Your task to perform on an android device: all mails in gmail Image 0: 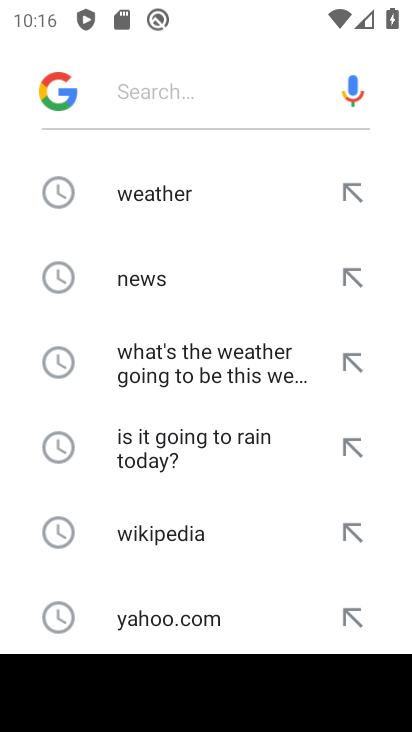
Step 0: press home button
Your task to perform on an android device: all mails in gmail Image 1: 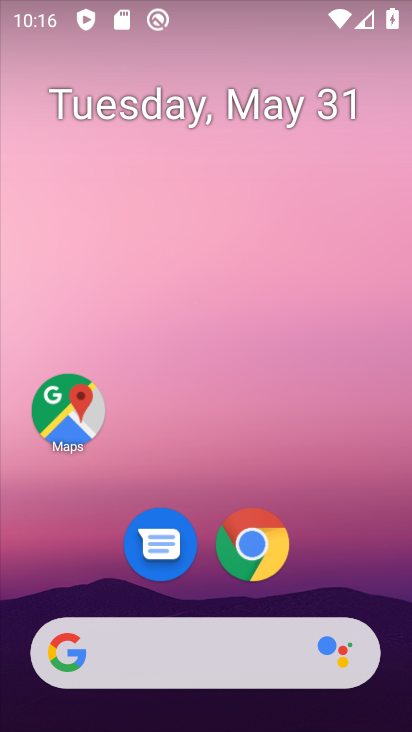
Step 1: drag from (193, 583) to (197, 181)
Your task to perform on an android device: all mails in gmail Image 2: 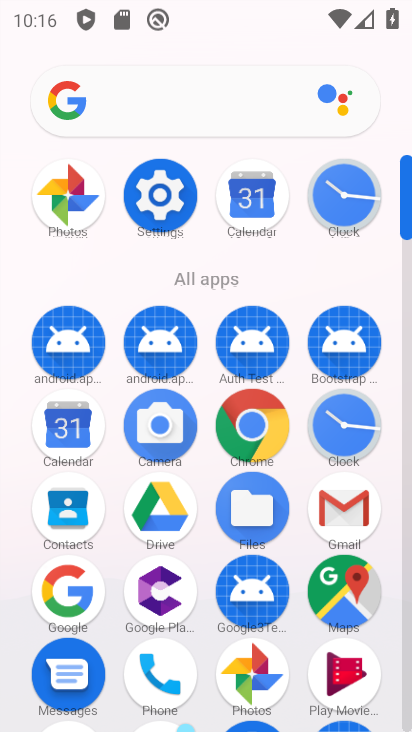
Step 2: click (337, 508)
Your task to perform on an android device: all mails in gmail Image 3: 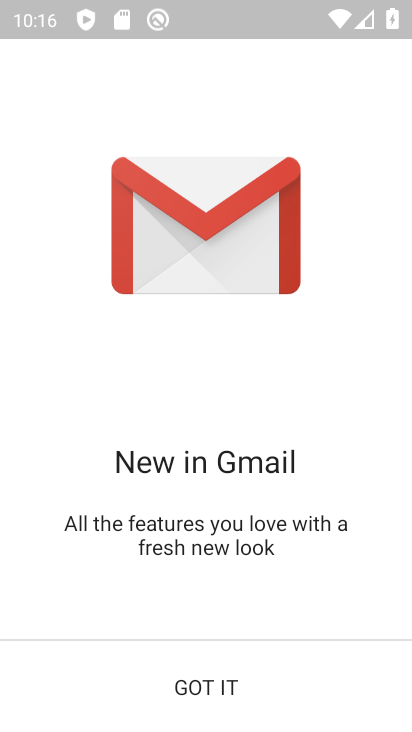
Step 3: click (256, 656)
Your task to perform on an android device: all mails in gmail Image 4: 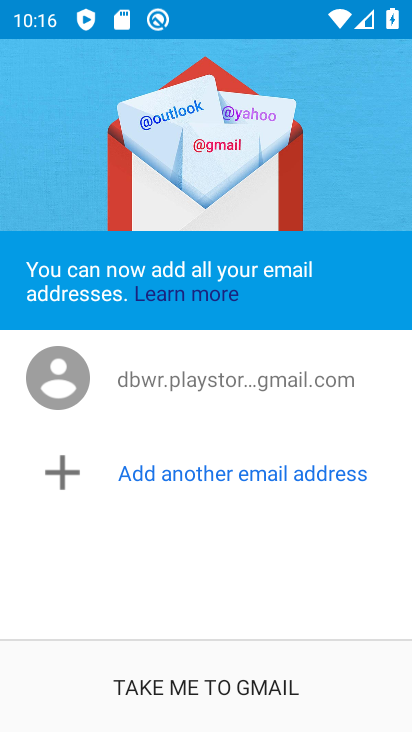
Step 4: click (204, 698)
Your task to perform on an android device: all mails in gmail Image 5: 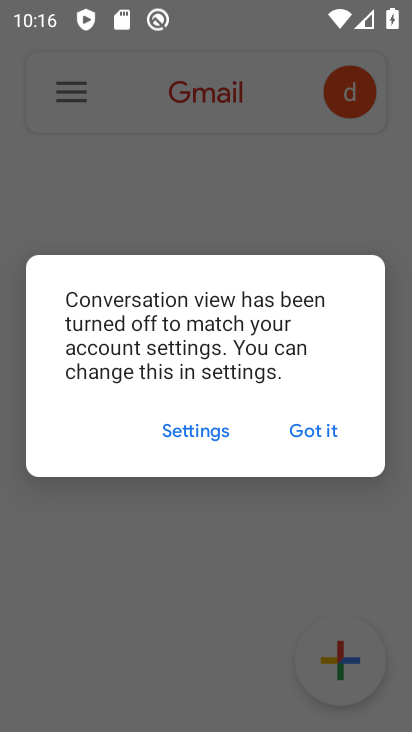
Step 5: click (312, 433)
Your task to perform on an android device: all mails in gmail Image 6: 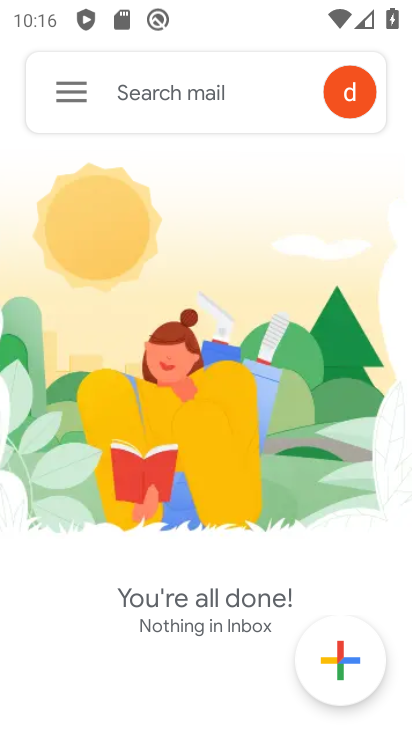
Step 6: click (68, 92)
Your task to perform on an android device: all mails in gmail Image 7: 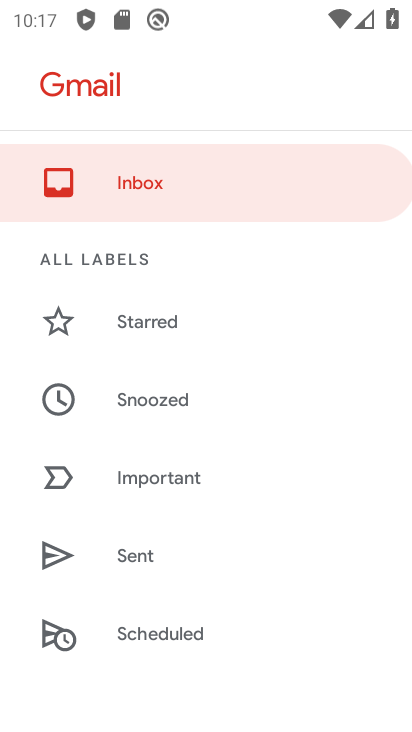
Step 7: drag from (239, 607) to (233, 332)
Your task to perform on an android device: all mails in gmail Image 8: 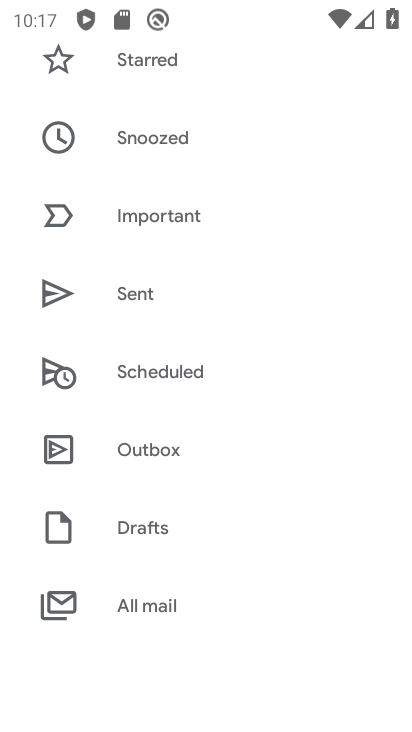
Step 8: click (175, 605)
Your task to perform on an android device: all mails in gmail Image 9: 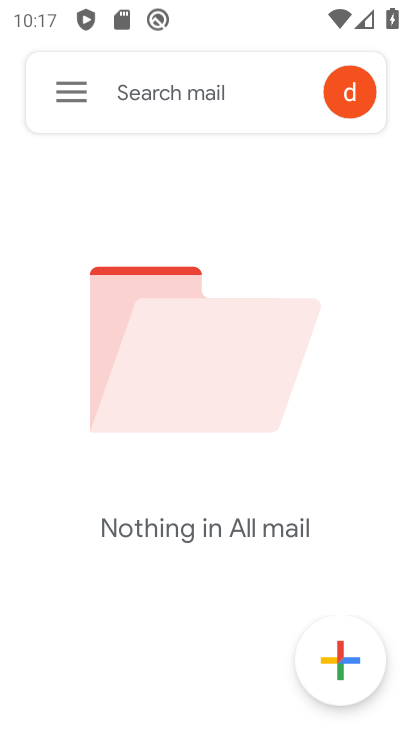
Step 9: task complete